Your task to perform on an android device: see tabs open on other devices in the chrome app Image 0: 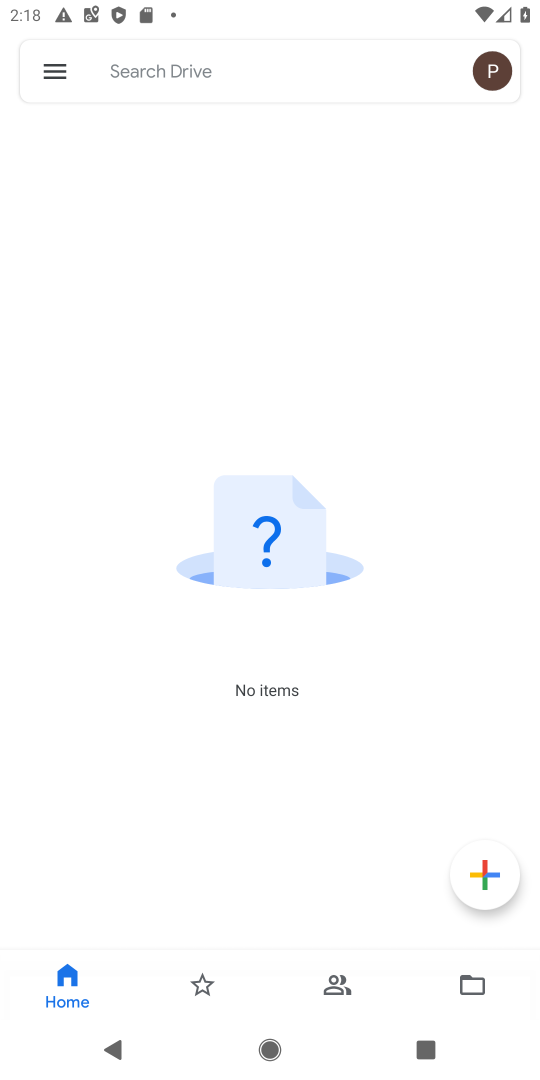
Step 0: press back button
Your task to perform on an android device: see tabs open on other devices in the chrome app Image 1: 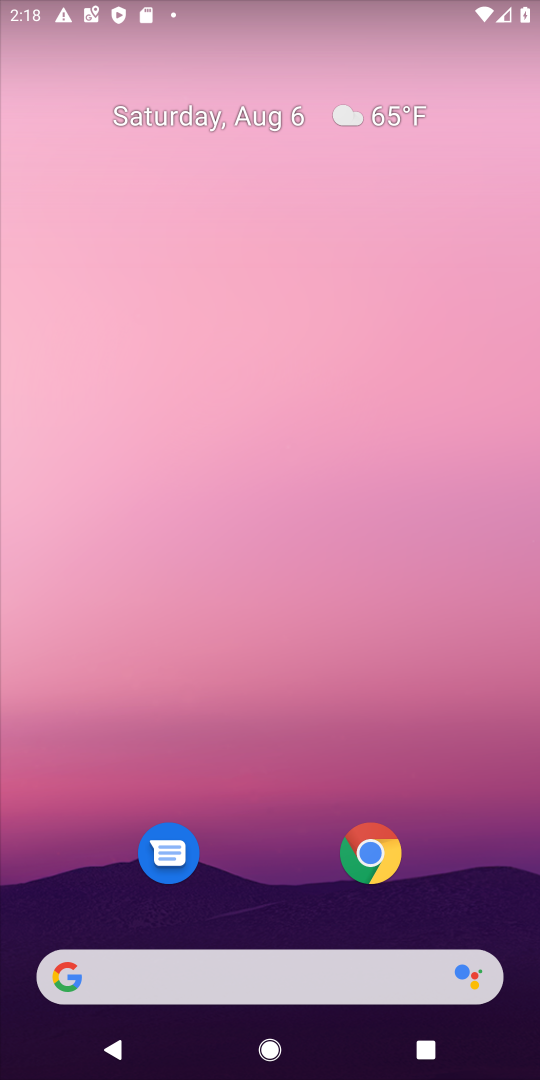
Step 1: click (372, 859)
Your task to perform on an android device: see tabs open on other devices in the chrome app Image 2: 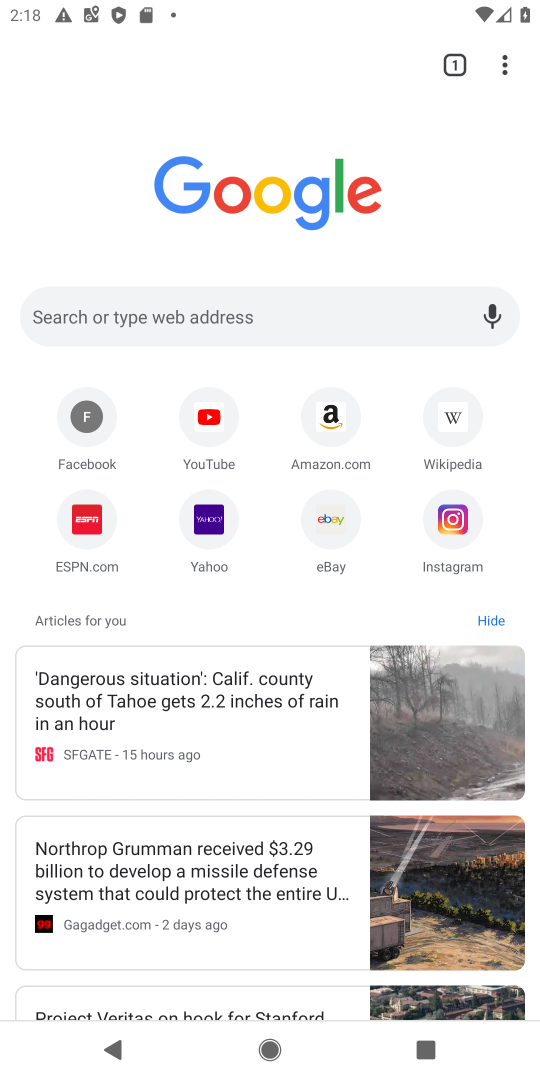
Step 2: task complete